Your task to perform on an android device: Go to display settings Image 0: 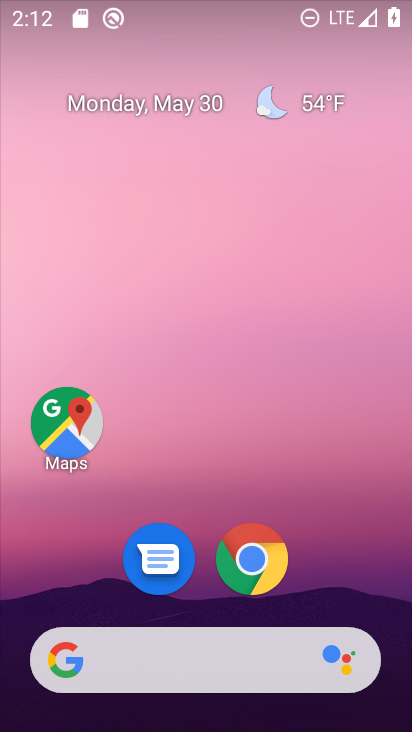
Step 0: drag from (314, 602) to (363, 42)
Your task to perform on an android device: Go to display settings Image 1: 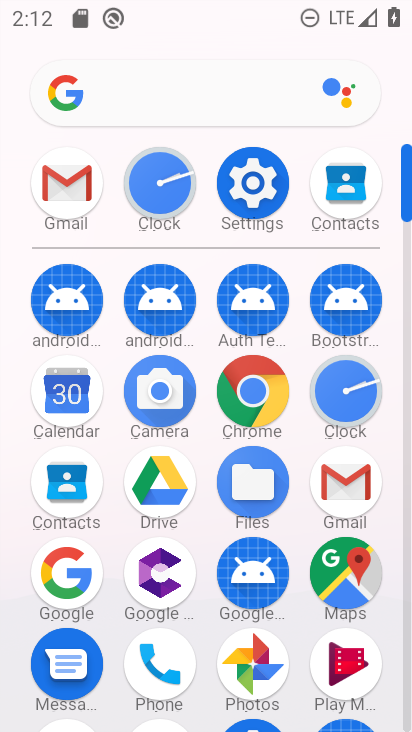
Step 1: click (258, 187)
Your task to perform on an android device: Go to display settings Image 2: 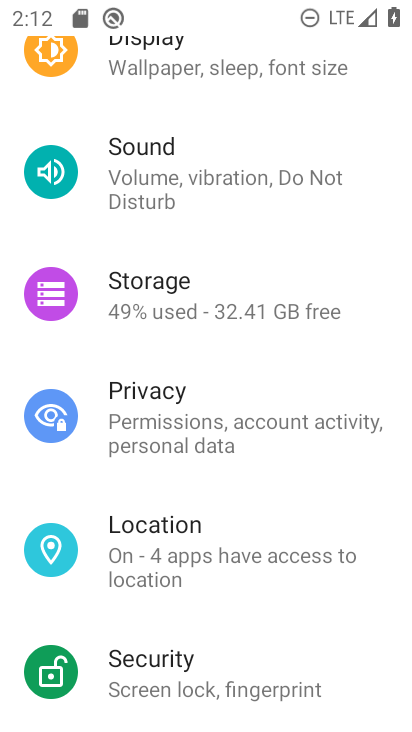
Step 2: click (218, 69)
Your task to perform on an android device: Go to display settings Image 3: 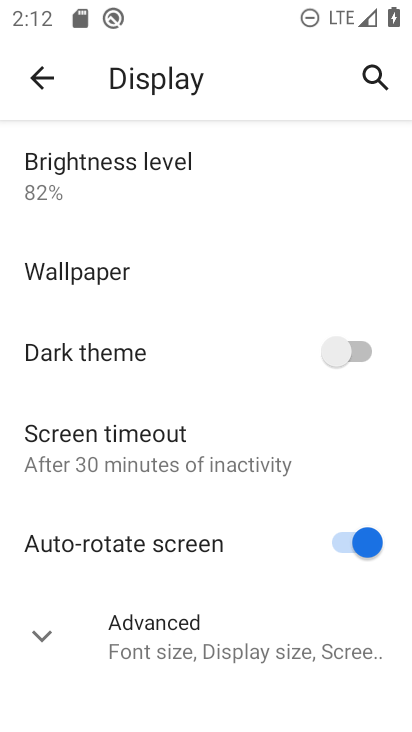
Step 3: task complete